Your task to perform on an android device: check the backup settings in the google photos Image 0: 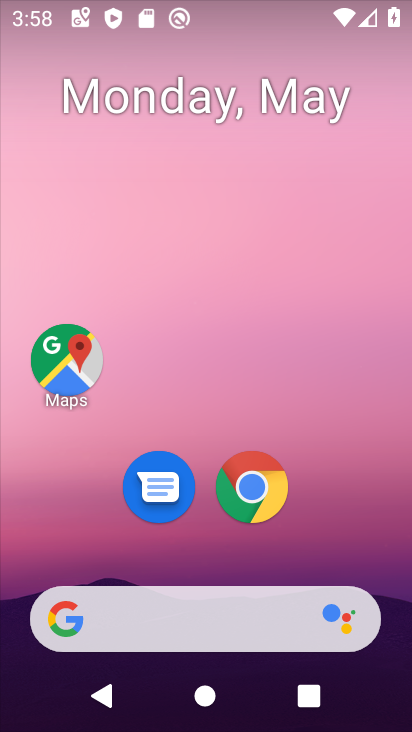
Step 0: drag from (206, 467) to (231, 177)
Your task to perform on an android device: check the backup settings in the google photos Image 1: 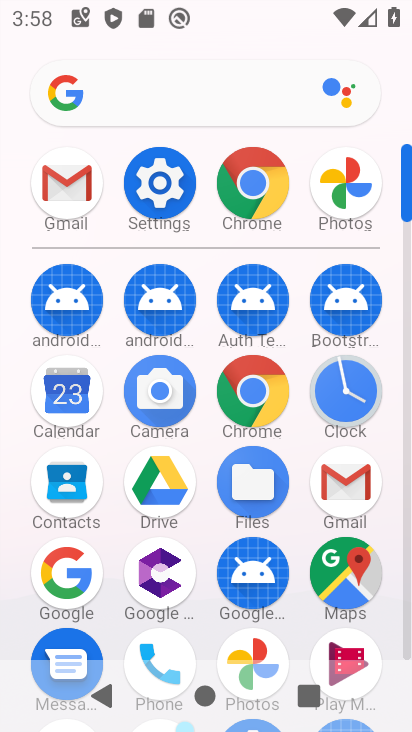
Step 1: click (249, 654)
Your task to perform on an android device: check the backup settings in the google photos Image 2: 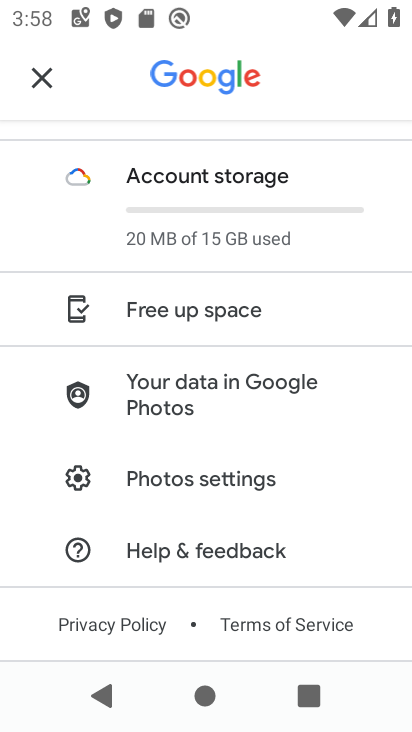
Step 2: click (179, 473)
Your task to perform on an android device: check the backup settings in the google photos Image 3: 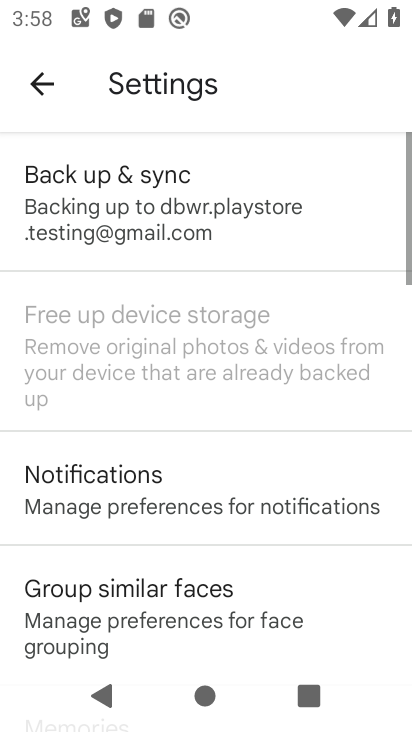
Step 3: click (175, 214)
Your task to perform on an android device: check the backup settings in the google photos Image 4: 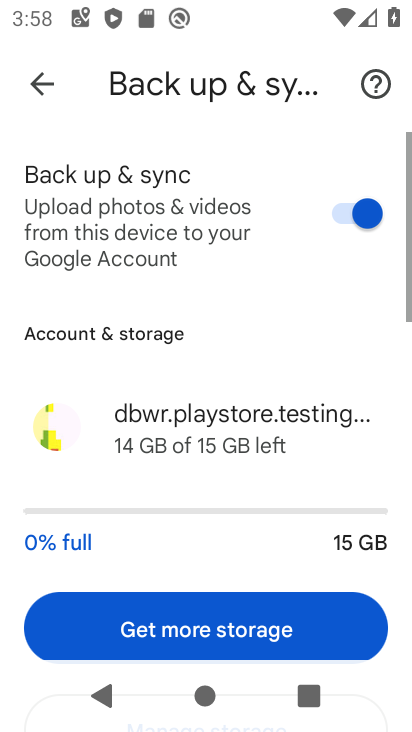
Step 4: task complete